Your task to perform on an android device: check battery use Image 0: 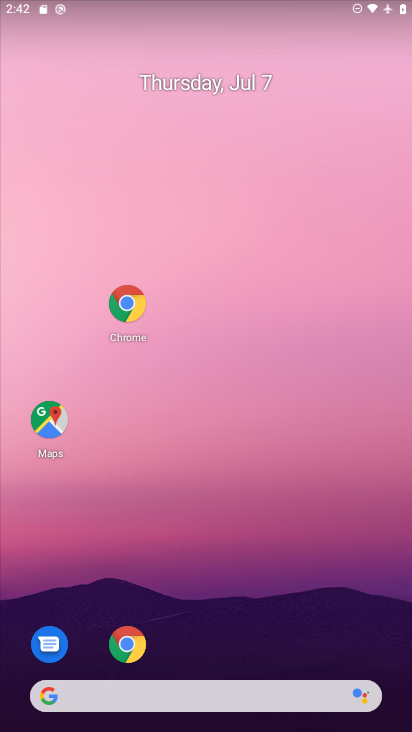
Step 0: click (286, 81)
Your task to perform on an android device: check battery use Image 1: 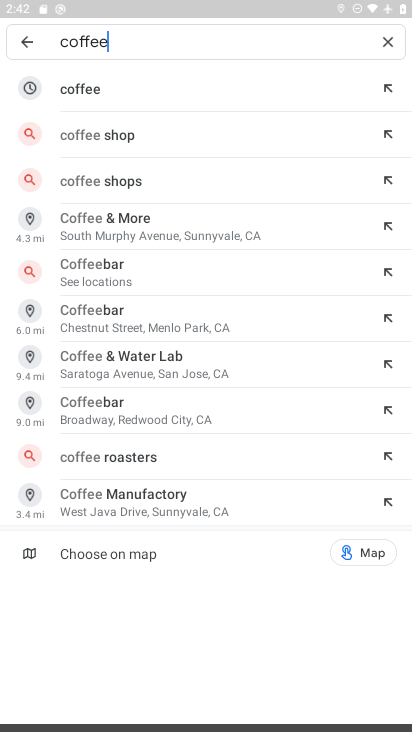
Step 1: press home button
Your task to perform on an android device: check battery use Image 2: 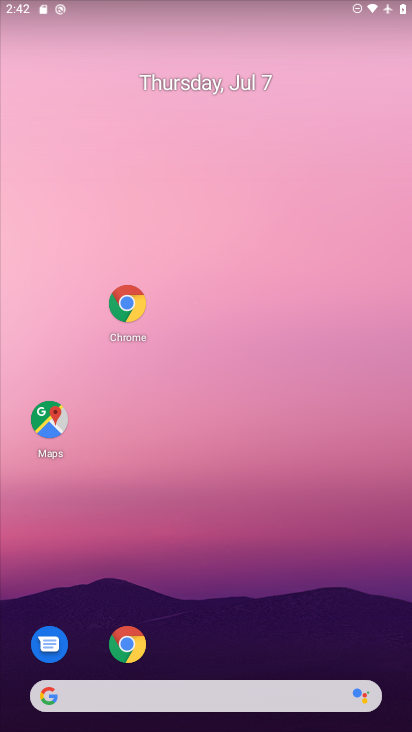
Step 2: click (386, 584)
Your task to perform on an android device: check battery use Image 3: 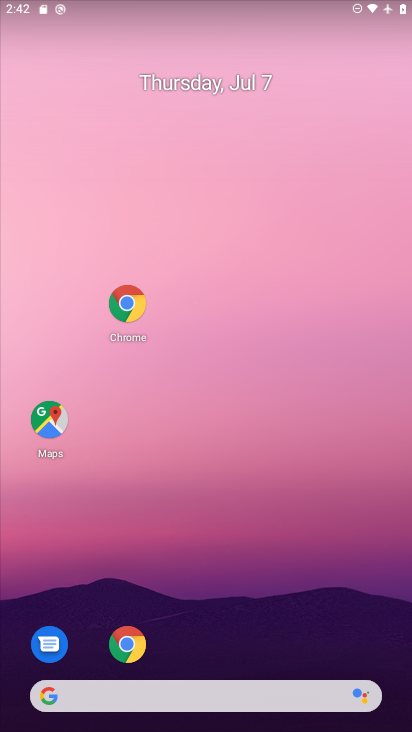
Step 3: drag from (270, 577) to (293, 84)
Your task to perform on an android device: check battery use Image 4: 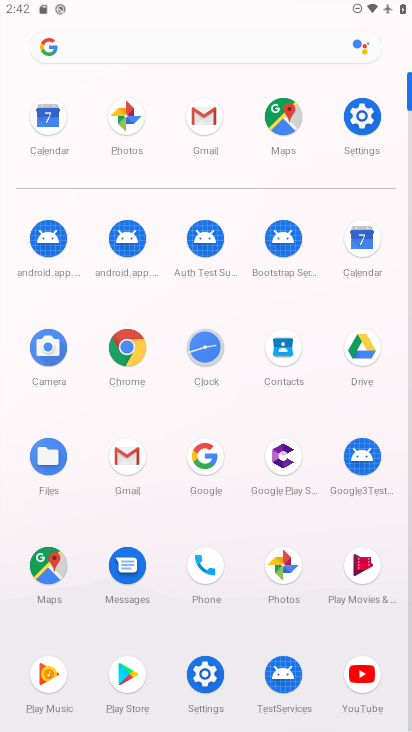
Step 4: click (358, 128)
Your task to perform on an android device: check battery use Image 5: 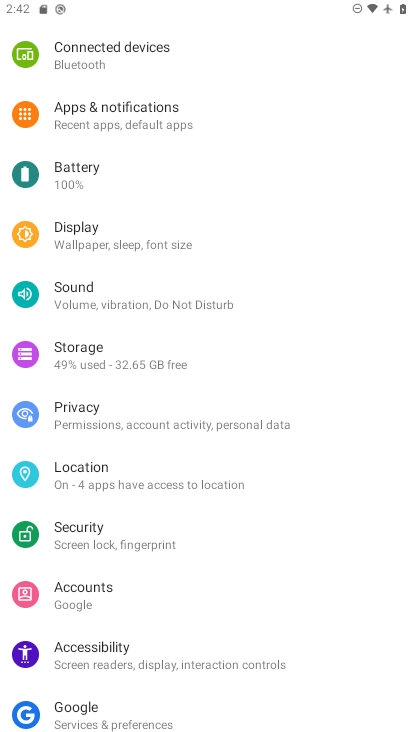
Step 5: click (147, 184)
Your task to perform on an android device: check battery use Image 6: 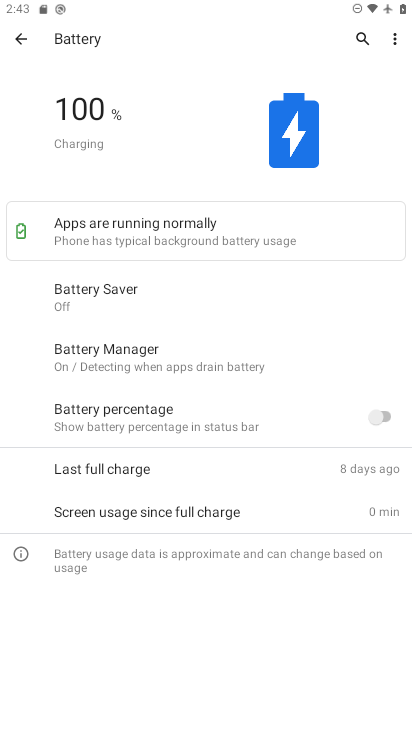
Step 6: click (397, 45)
Your task to perform on an android device: check battery use Image 7: 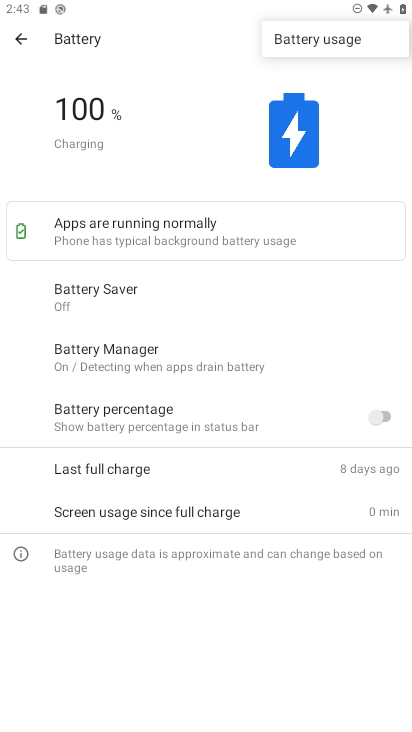
Step 7: click (341, 38)
Your task to perform on an android device: check battery use Image 8: 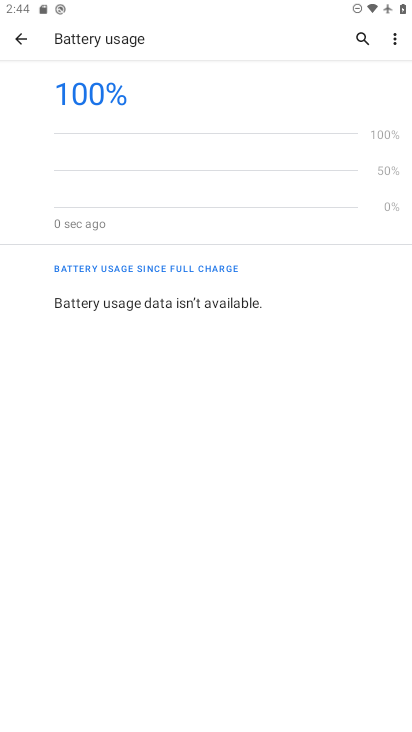
Step 8: task complete